Your task to perform on an android device: What's on my calendar tomorrow? Image 0: 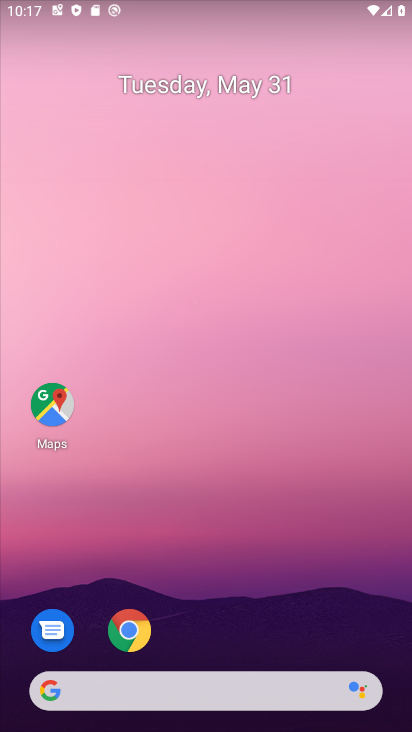
Step 0: drag from (229, 631) to (224, 287)
Your task to perform on an android device: What's on my calendar tomorrow? Image 1: 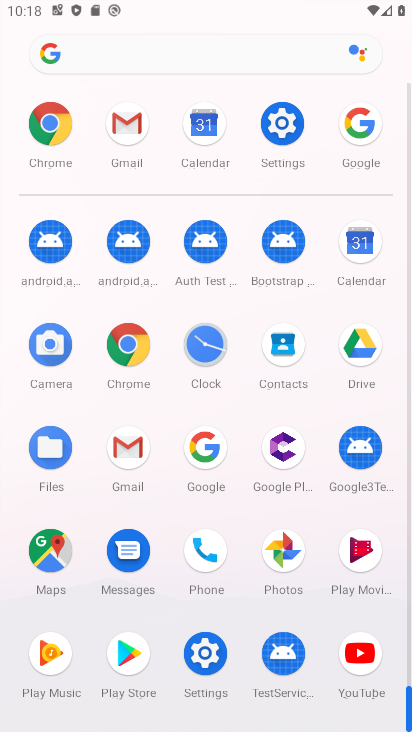
Step 1: click (364, 267)
Your task to perform on an android device: What's on my calendar tomorrow? Image 2: 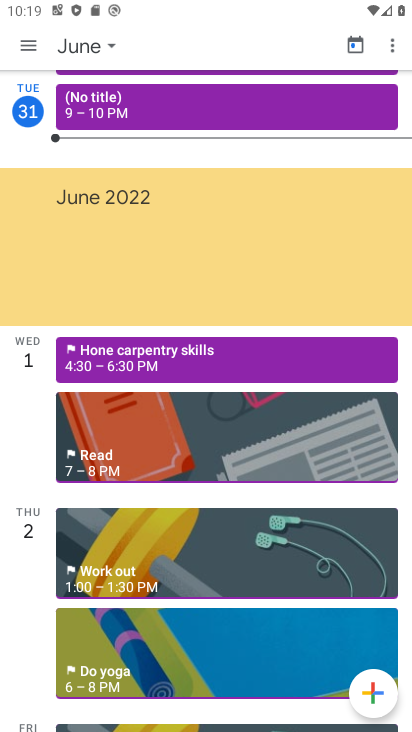
Step 2: task complete